Your task to perform on an android device: Open my contact list Image 0: 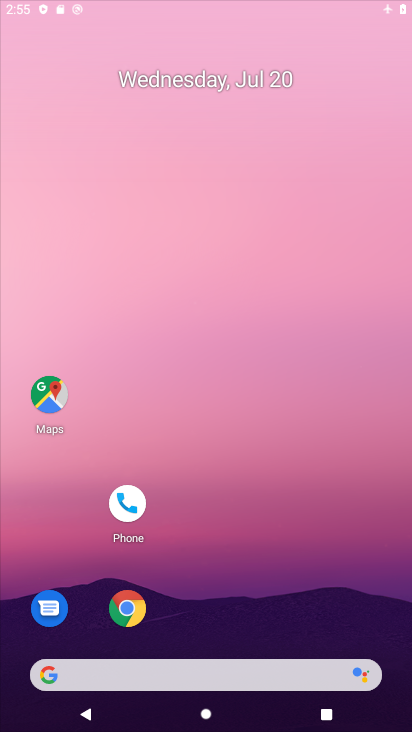
Step 0: drag from (278, 643) to (261, 172)
Your task to perform on an android device: Open my contact list Image 1: 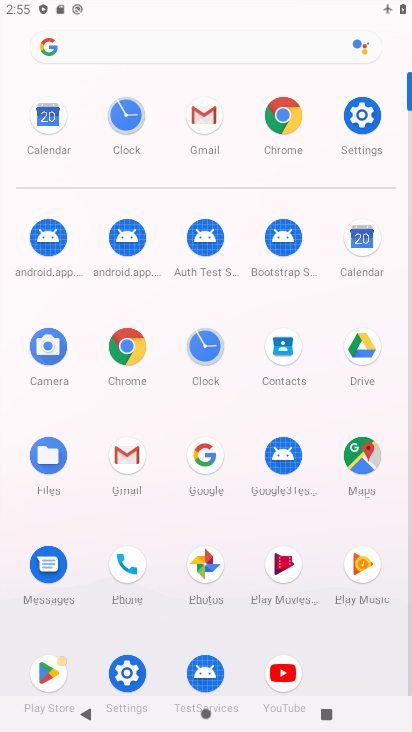
Step 1: click (302, 345)
Your task to perform on an android device: Open my contact list Image 2: 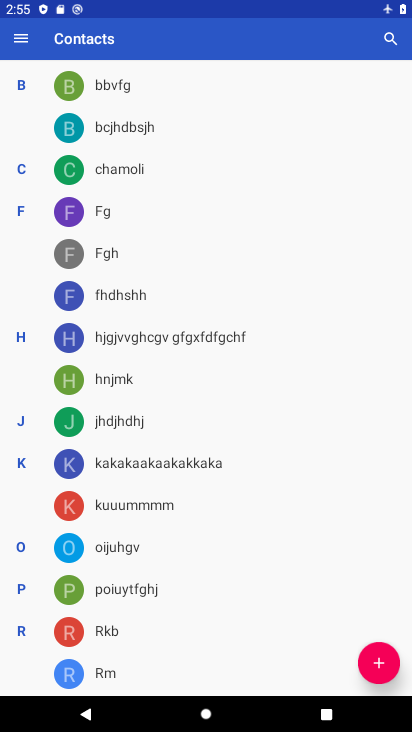
Step 2: task complete